Your task to perform on an android device: Turn off the flashlight Image 0: 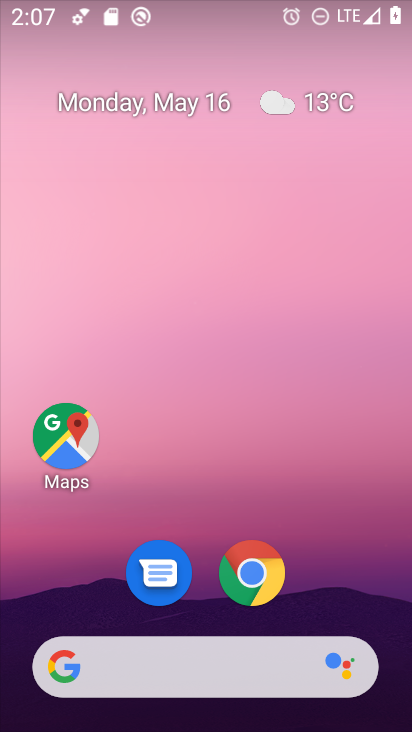
Step 0: drag from (103, 191) to (245, 645)
Your task to perform on an android device: Turn off the flashlight Image 1: 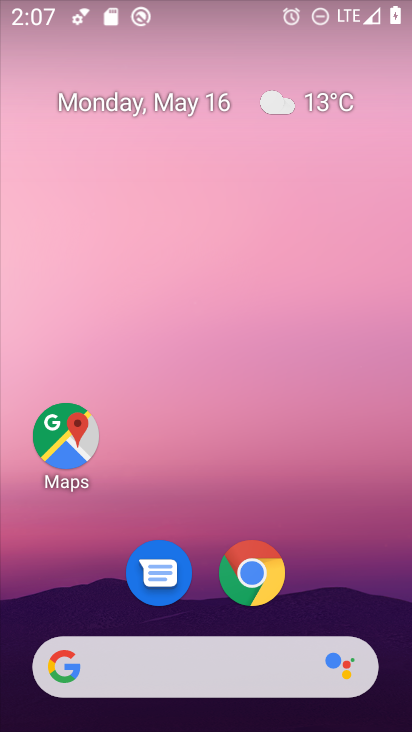
Step 1: task complete